Your task to perform on an android device: Open calendar and show me the second week of next month Image 0: 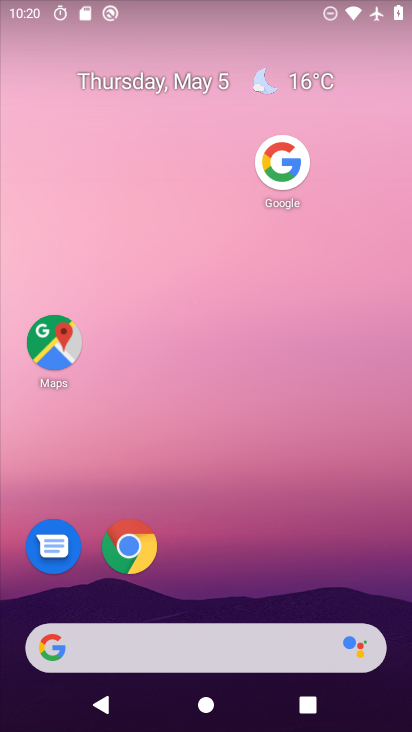
Step 0: drag from (178, 653) to (335, 202)
Your task to perform on an android device: Open calendar and show me the second week of next month Image 1: 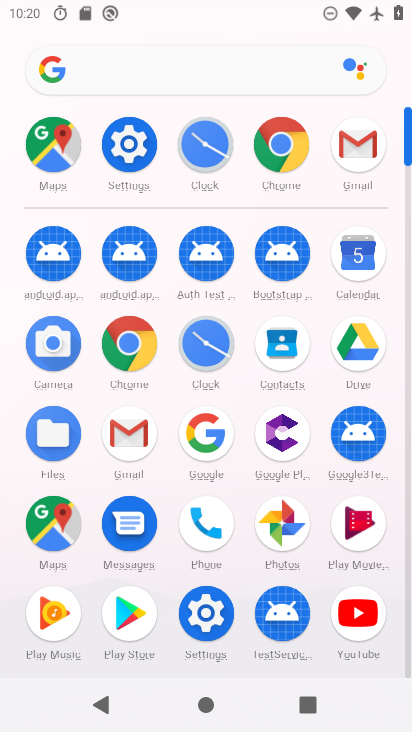
Step 1: click (361, 265)
Your task to perform on an android device: Open calendar and show me the second week of next month Image 2: 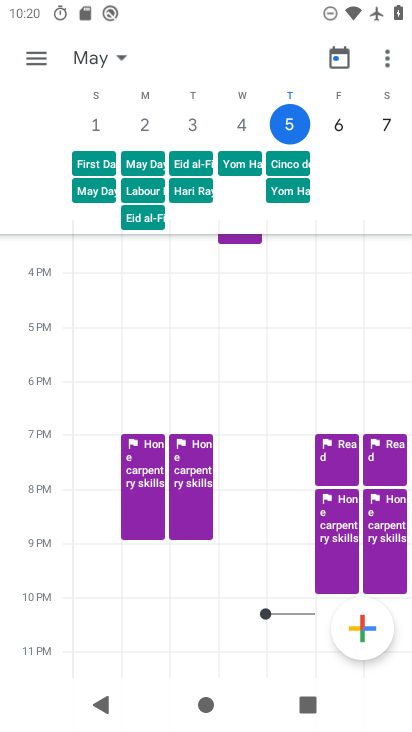
Step 2: click (83, 58)
Your task to perform on an android device: Open calendar and show me the second week of next month Image 3: 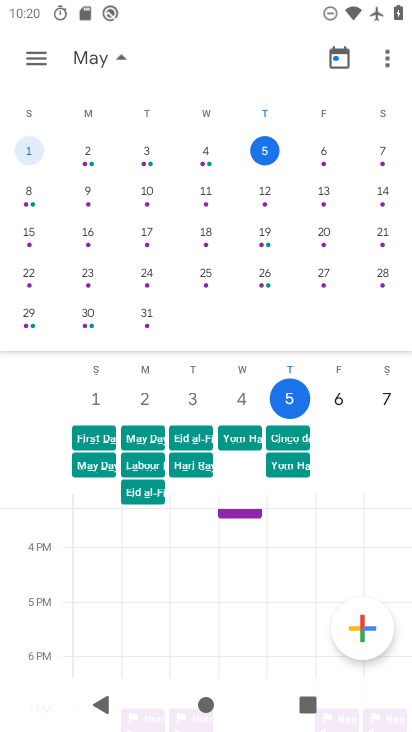
Step 3: drag from (378, 268) to (2, 288)
Your task to perform on an android device: Open calendar and show me the second week of next month Image 4: 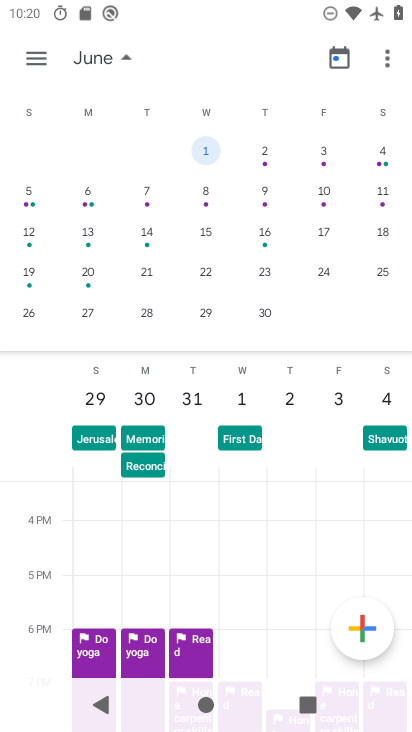
Step 4: click (28, 196)
Your task to perform on an android device: Open calendar and show me the second week of next month Image 5: 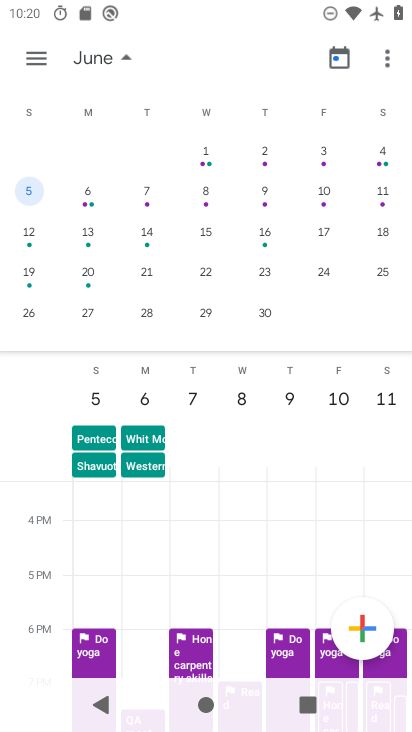
Step 5: click (33, 65)
Your task to perform on an android device: Open calendar and show me the second week of next month Image 6: 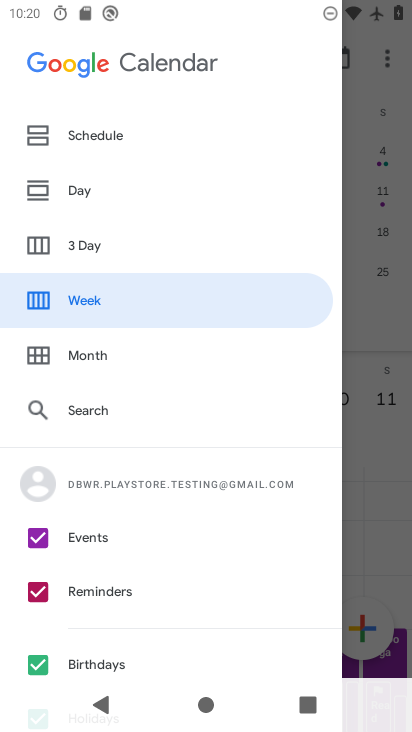
Step 6: click (116, 305)
Your task to perform on an android device: Open calendar and show me the second week of next month Image 7: 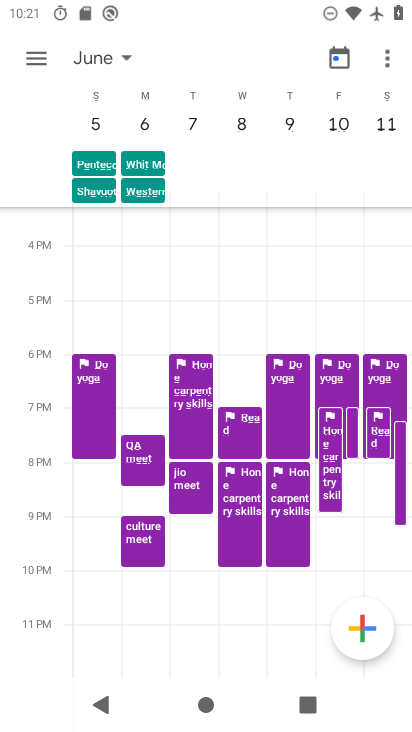
Step 7: task complete